Your task to perform on an android device: Go to Wikipedia Image 0: 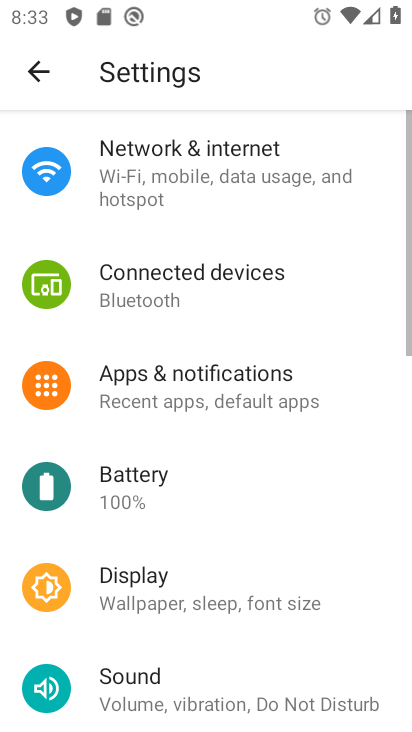
Step 0: press home button
Your task to perform on an android device: Go to Wikipedia Image 1: 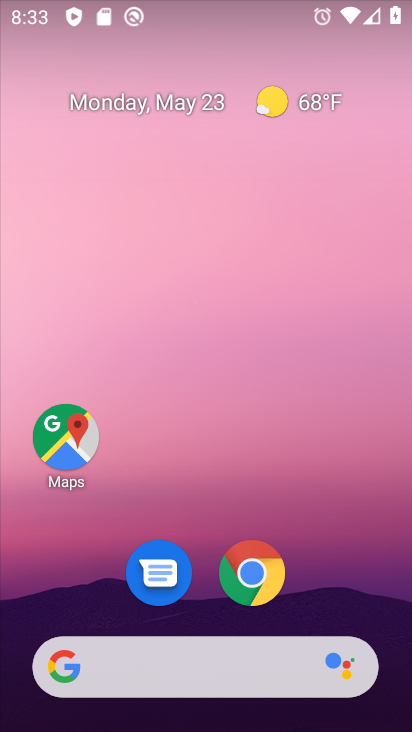
Step 1: click (253, 569)
Your task to perform on an android device: Go to Wikipedia Image 2: 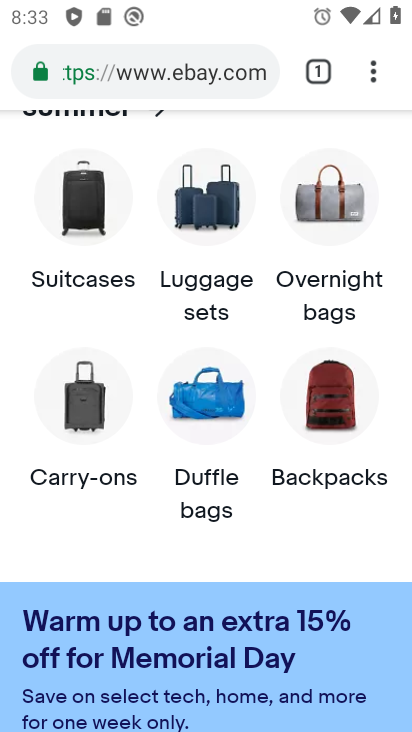
Step 2: click (314, 66)
Your task to perform on an android device: Go to Wikipedia Image 3: 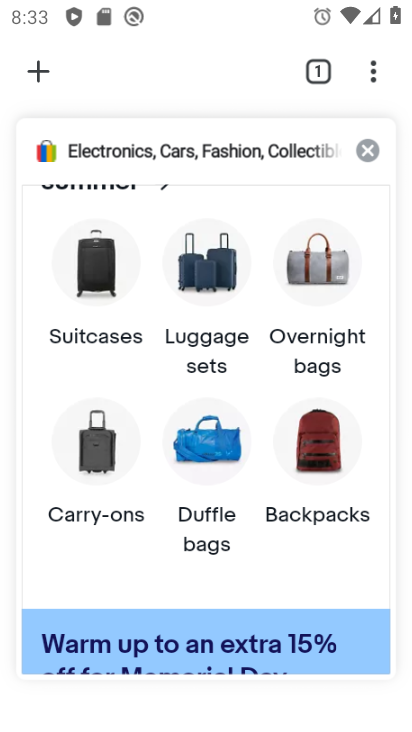
Step 3: click (368, 146)
Your task to perform on an android device: Go to Wikipedia Image 4: 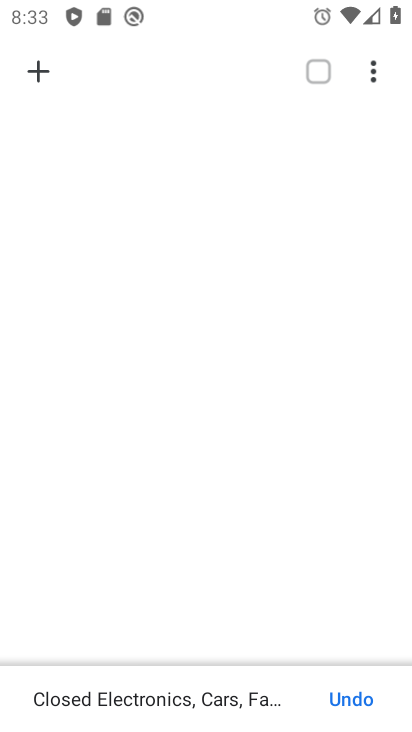
Step 4: click (42, 75)
Your task to perform on an android device: Go to Wikipedia Image 5: 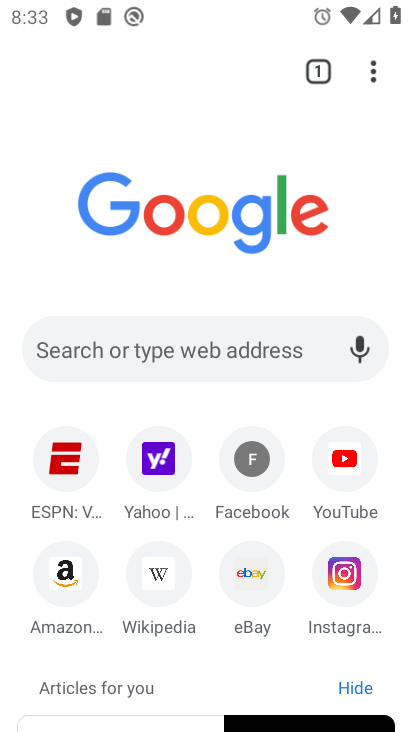
Step 5: click (158, 572)
Your task to perform on an android device: Go to Wikipedia Image 6: 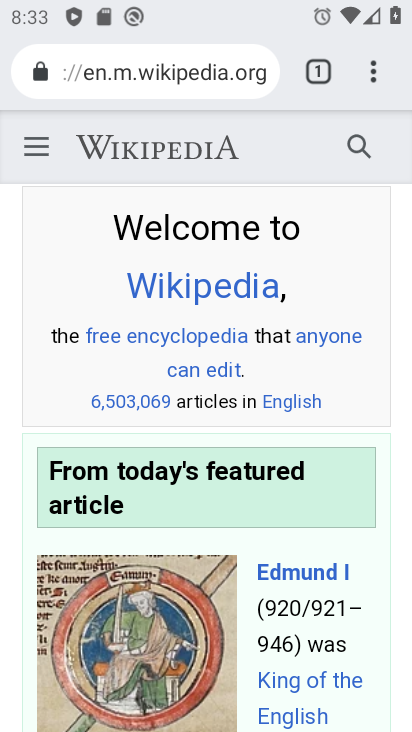
Step 6: task complete